Your task to perform on an android device: Set the phone to "Do not disturb". Image 0: 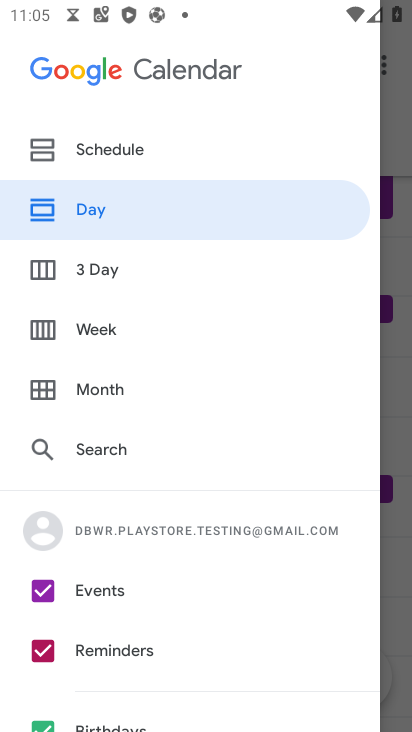
Step 0: press home button
Your task to perform on an android device: Set the phone to "Do not disturb". Image 1: 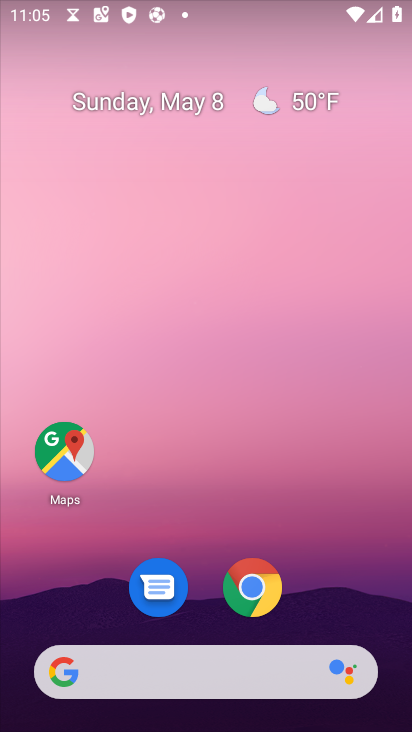
Step 1: drag from (290, 519) to (118, 132)
Your task to perform on an android device: Set the phone to "Do not disturb". Image 2: 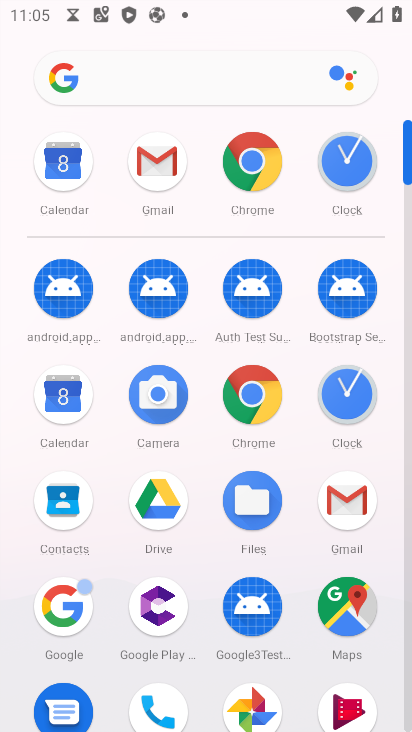
Step 2: drag from (203, 520) to (209, 237)
Your task to perform on an android device: Set the phone to "Do not disturb". Image 3: 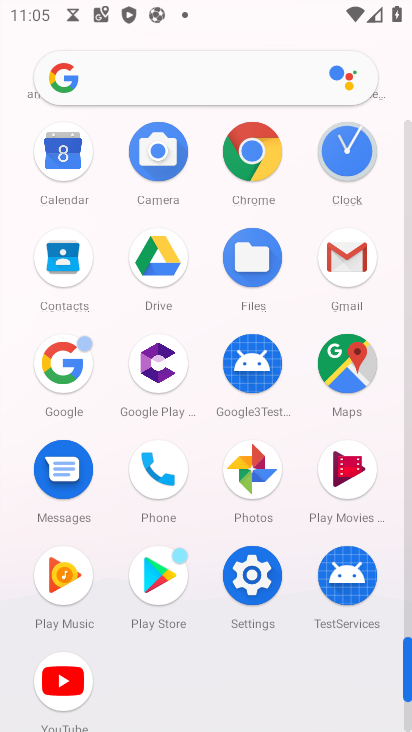
Step 3: click (258, 594)
Your task to perform on an android device: Set the phone to "Do not disturb". Image 4: 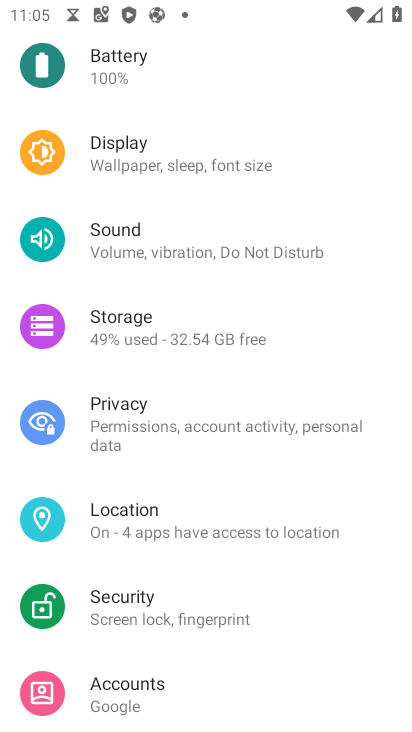
Step 4: click (234, 245)
Your task to perform on an android device: Set the phone to "Do not disturb". Image 5: 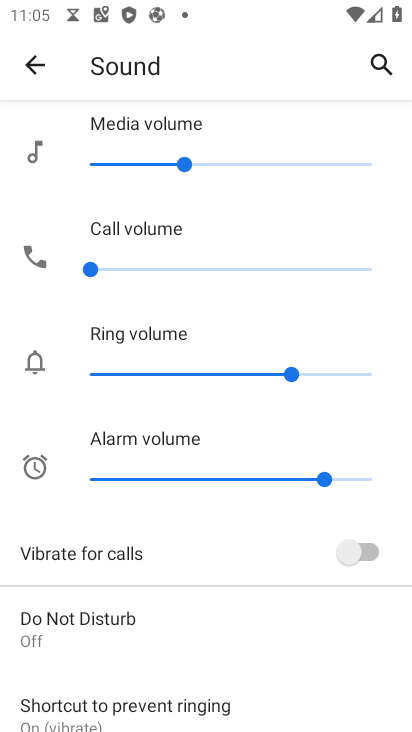
Step 5: click (148, 632)
Your task to perform on an android device: Set the phone to "Do not disturb". Image 6: 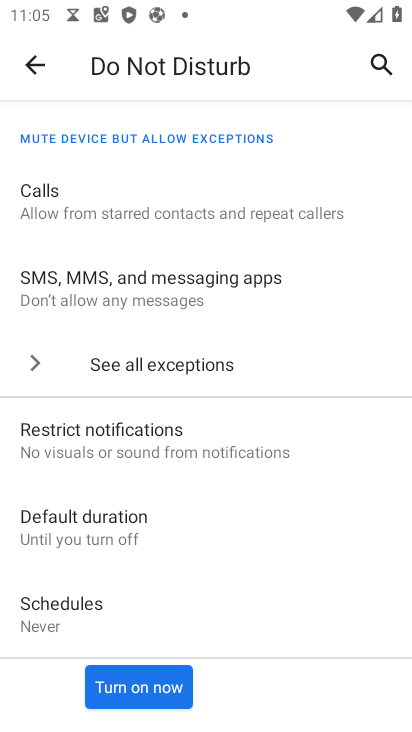
Step 6: click (135, 686)
Your task to perform on an android device: Set the phone to "Do not disturb". Image 7: 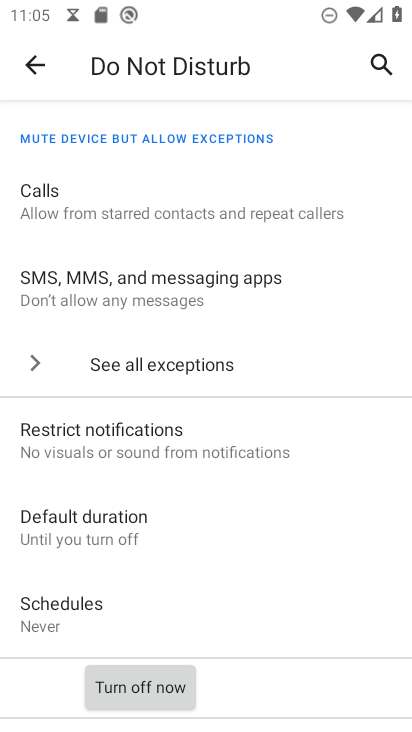
Step 7: task complete